Your task to perform on an android device: Open location settings Image 0: 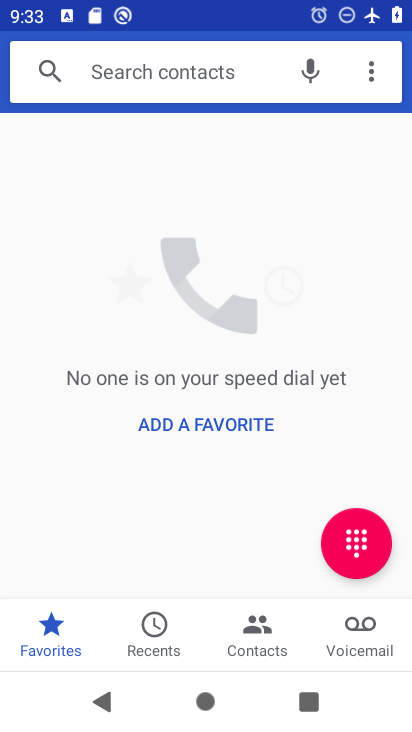
Step 0: press home button
Your task to perform on an android device: Open location settings Image 1: 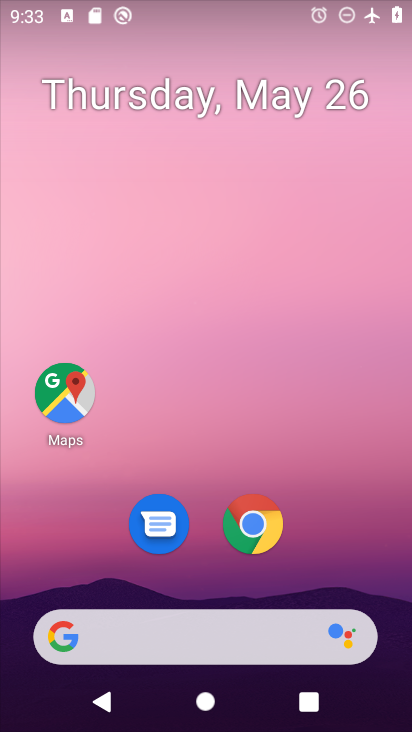
Step 1: drag from (319, 545) to (340, 60)
Your task to perform on an android device: Open location settings Image 2: 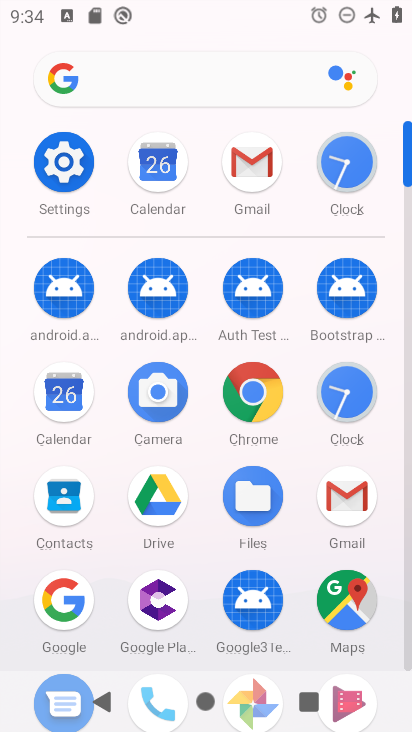
Step 2: click (76, 155)
Your task to perform on an android device: Open location settings Image 3: 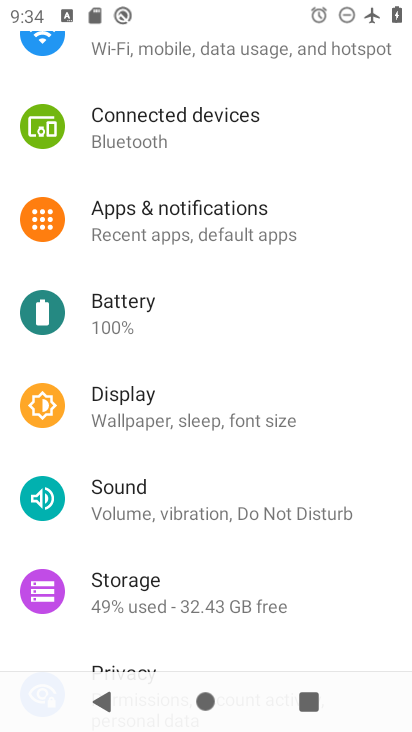
Step 3: drag from (268, 474) to (242, 141)
Your task to perform on an android device: Open location settings Image 4: 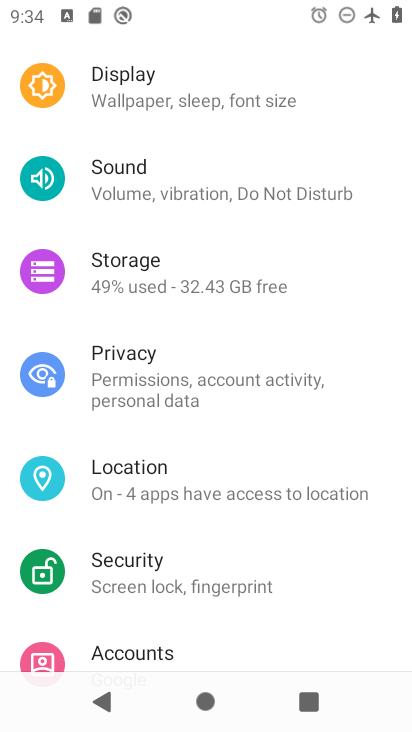
Step 4: click (209, 479)
Your task to perform on an android device: Open location settings Image 5: 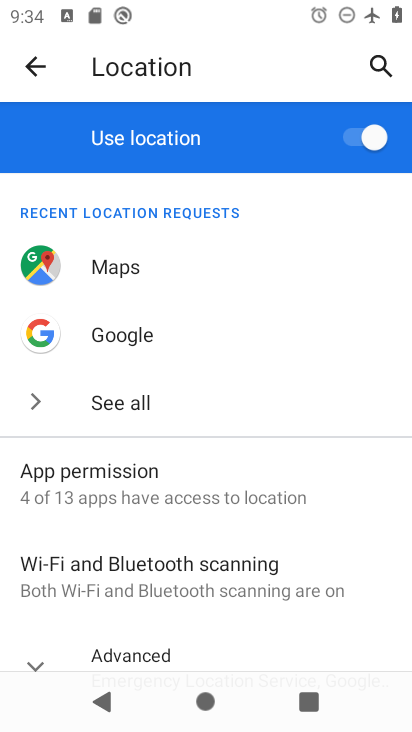
Step 5: task complete